Your task to perform on an android device: Go to internet settings Image 0: 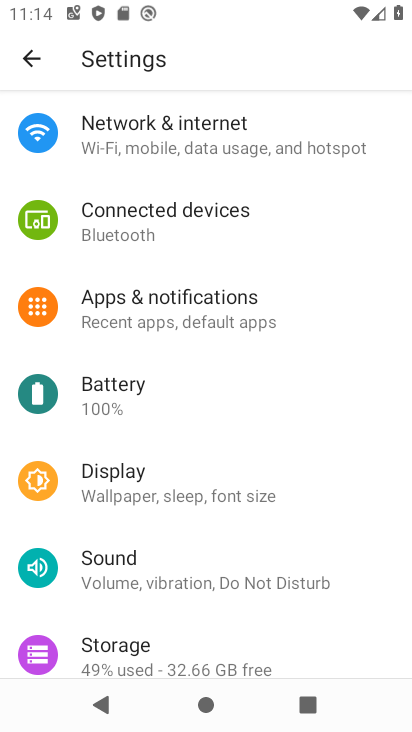
Step 0: click (251, 165)
Your task to perform on an android device: Go to internet settings Image 1: 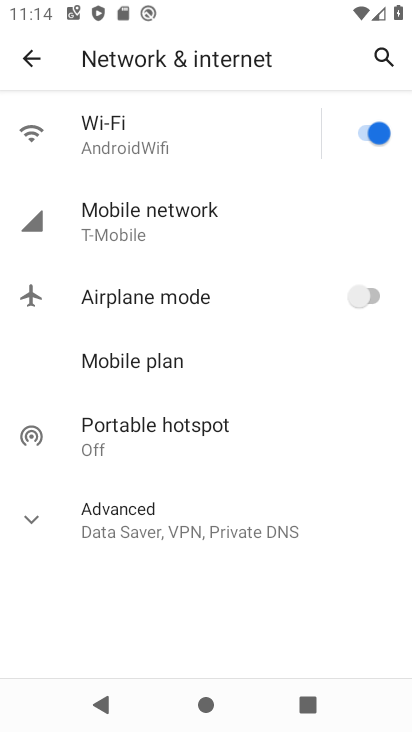
Step 1: task complete